Your task to perform on an android device: Go to privacy settings Image 0: 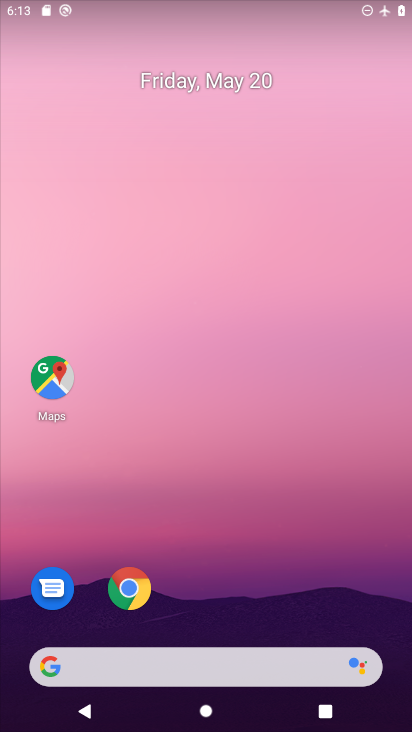
Step 0: click (202, 198)
Your task to perform on an android device: Go to privacy settings Image 1: 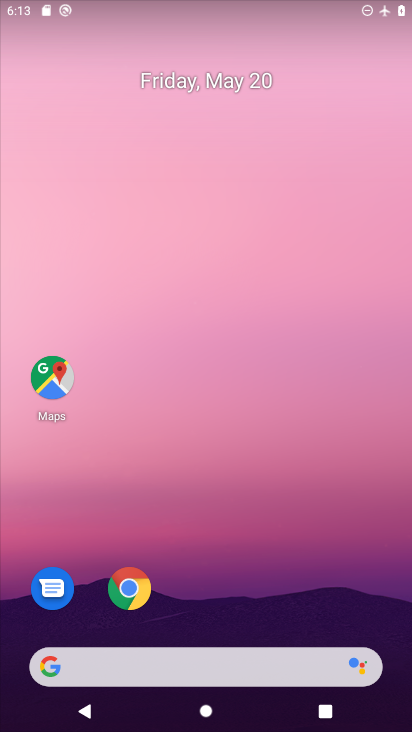
Step 1: drag from (193, 560) to (182, 56)
Your task to perform on an android device: Go to privacy settings Image 2: 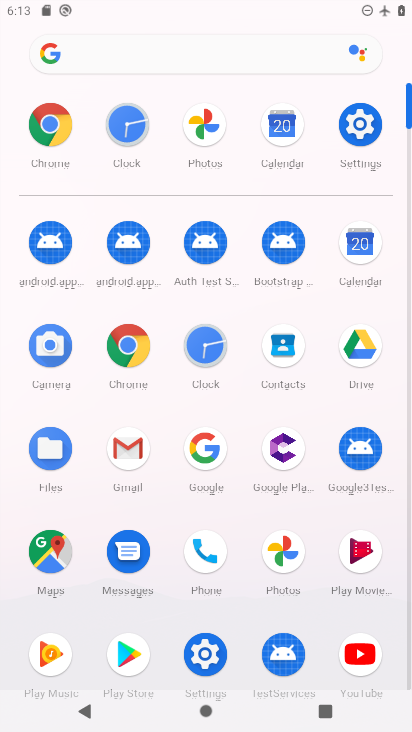
Step 2: click (354, 137)
Your task to perform on an android device: Go to privacy settings Image 3: 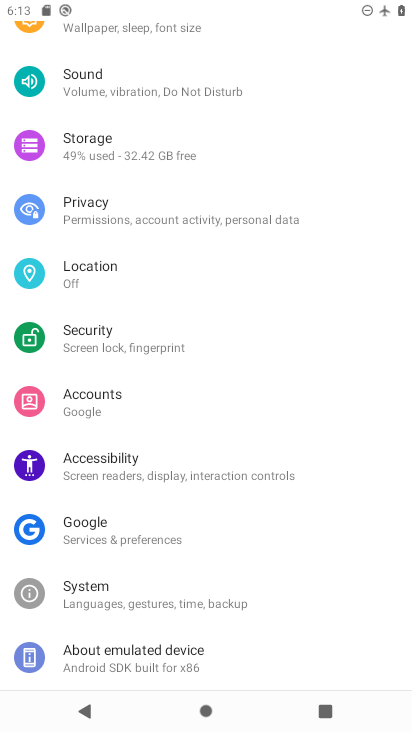
Step 3: click (175, 217)
Your task to perform on an android device: Go to privacy settings Image 4: 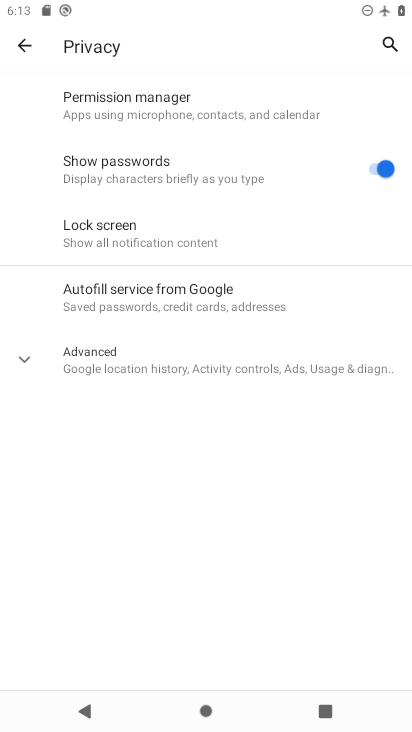
Step 4: task complete